Your task to perform on an android device: turn off picture-in-picture Image 0: 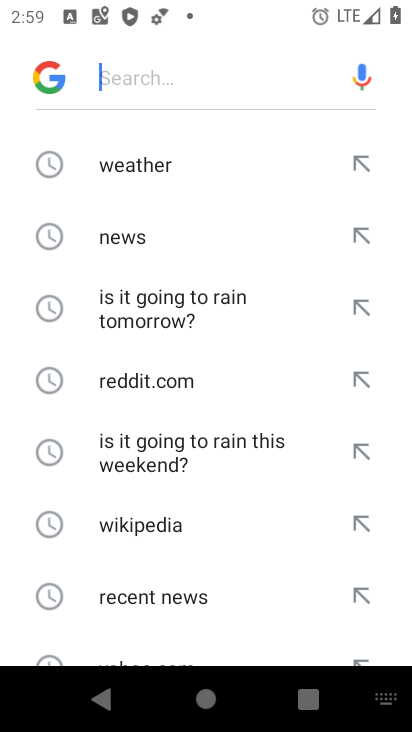
Step 0: press home button
Your task to perform on an android device: turn off picture-in-picture Image 1: 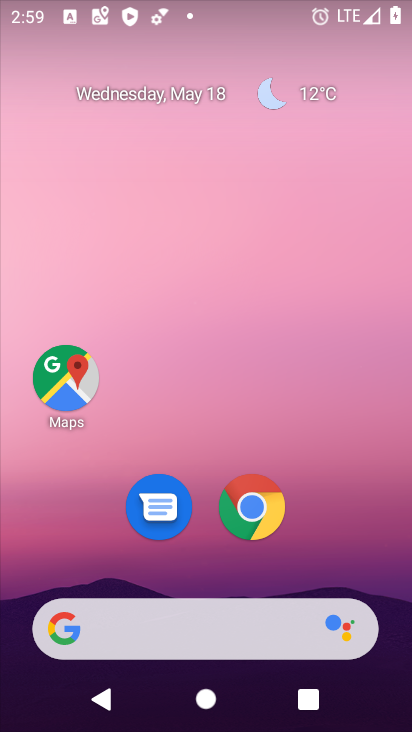
Step 1: drag from (392, 619) to (326, 118)
Your task to perform on an android device: turn off picture-in-picture Image 2: 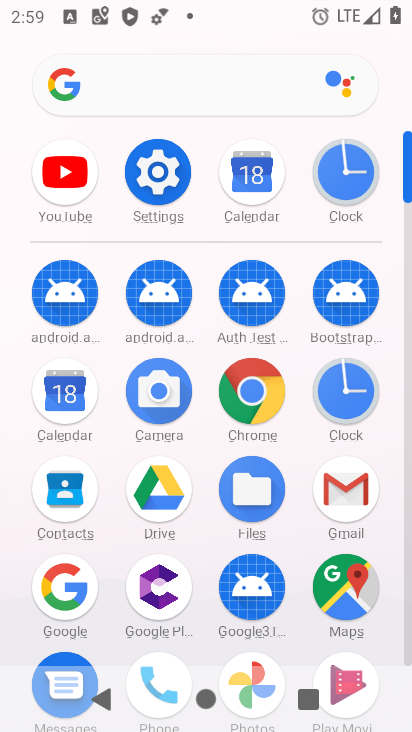
Step 2: click (407, 652)
Your task to perform on an android device: turn off picture-in-picture Image 3: 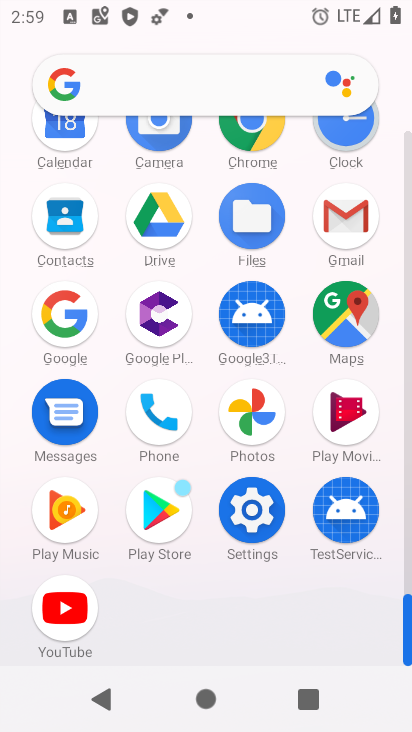
Step 3: click (255, 513)
Your task to perform on an android device: turn off picture-in-picture Image 4: 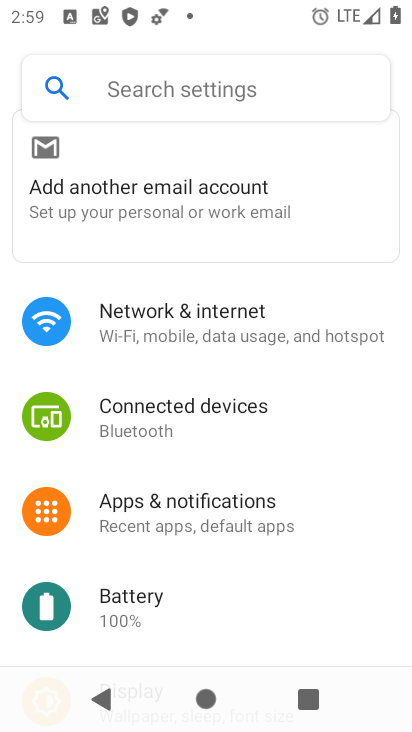
Step 4: click (183, 519)
Your task to perform on an android device: turn off picture-in-picture Image 5: 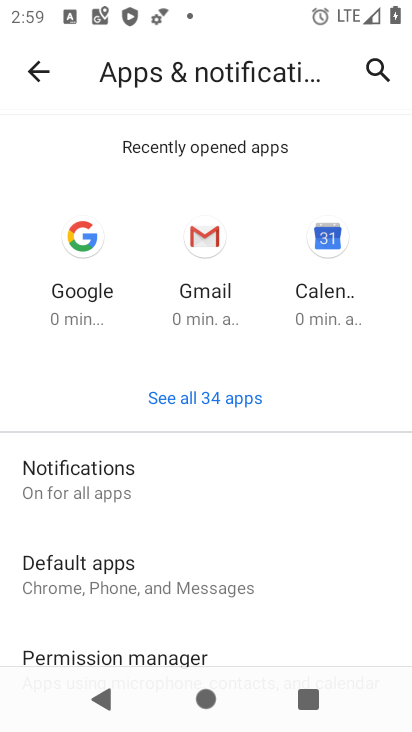
Step 5: drag from (243, 602) to (258, 213)
Your task to perform on an android device: turn off picture-in-picture Image 6: 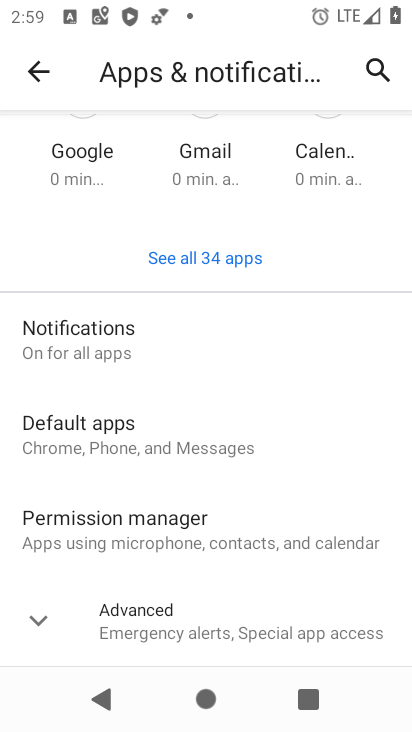
Step 6: click (37, 617)
Your task to perform on an android device: turn off picture-in-picture Image 7: 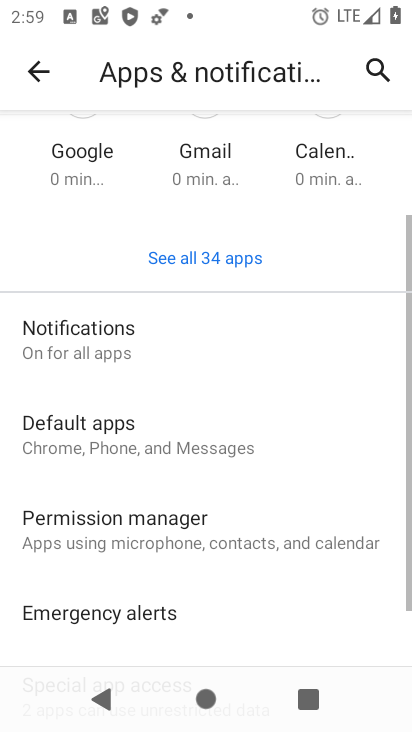
Step 7: drag from (279, 608) to (269, 202)
Your task to perform on an android device: turn off picture-in-picture Image 8: 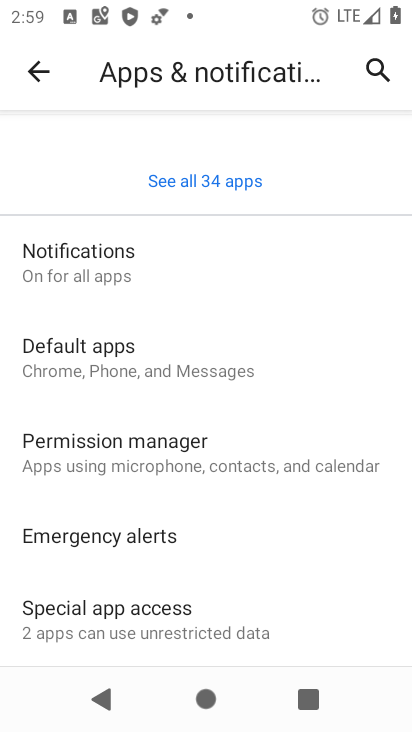
Step 8: click (149, 627)
Your task to perform on an android device: turn off picture-in-picture Image 9: 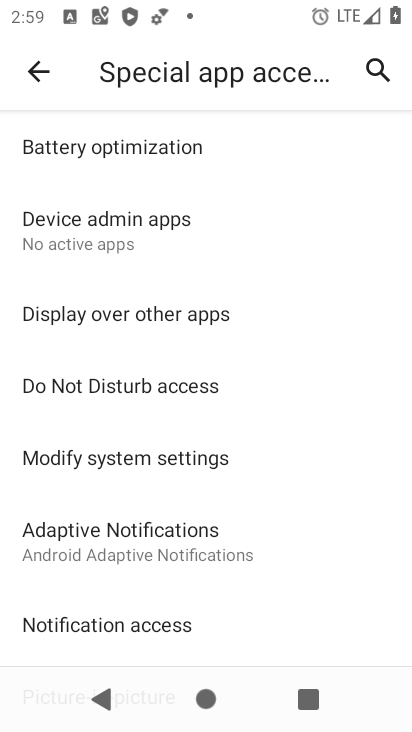
Step 9: drag from (261, 616) to (245, 212)
Your task to perform on an android device: turn off picture-in-picture Image 10: 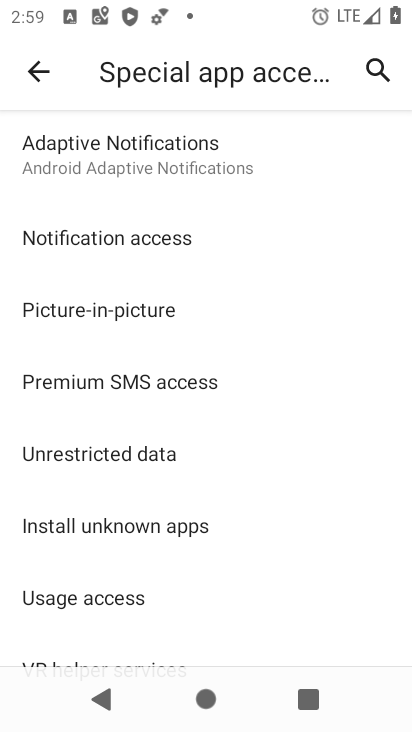
Step 10: click (90, 308)
Your task to perform on an android device: turn off picture-in-picture Image 11: 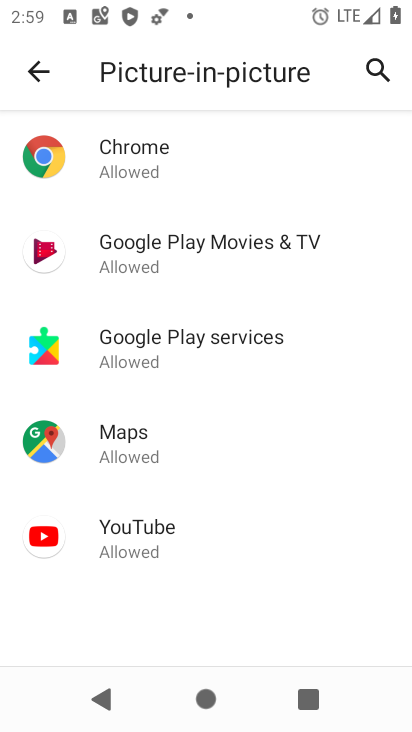
Step 11: click (126, 553)
Your task to perform on an android device: turn off picture-in-picture Image 12: 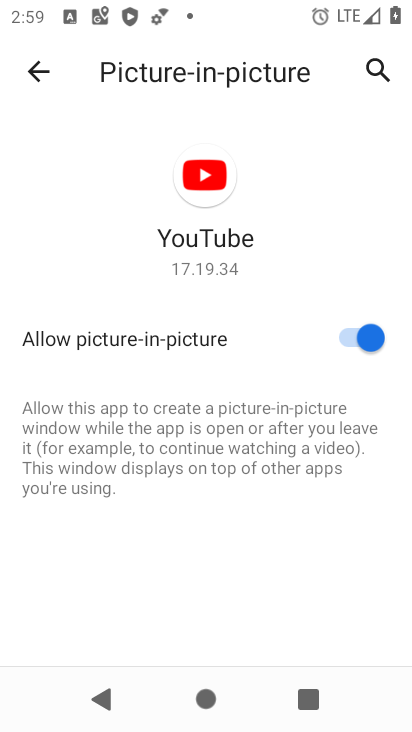
Step 12: click (347, 331)
Your task to perform on an android device: turn off picture-in-picture Image 13: 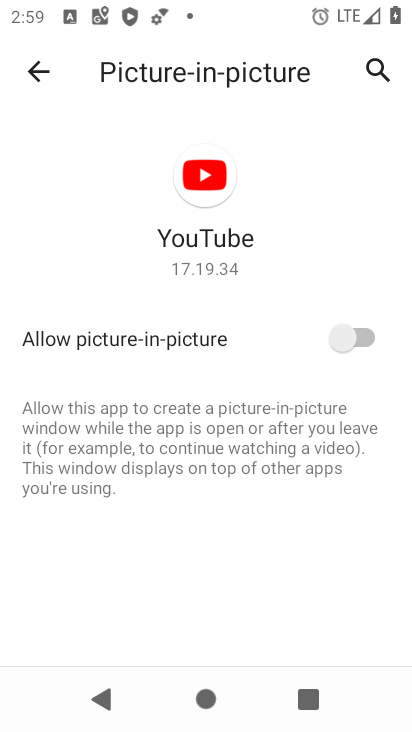
Step 13: task complete